Your task to perform on an android device: turn pop-ups off in chrome Image 0: 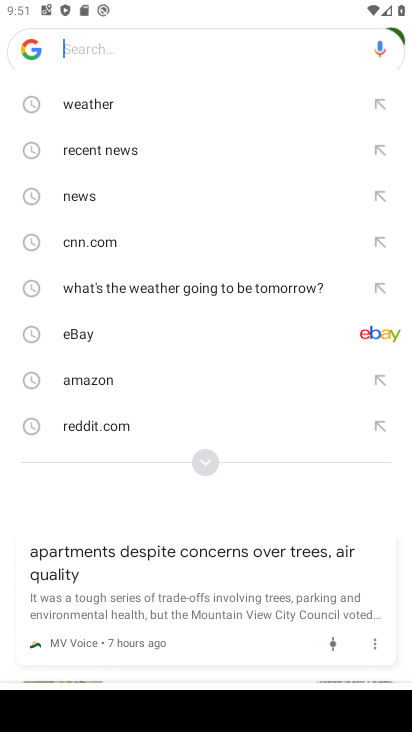
Step 0: press home button
Your task to perform on an android device: turn pop-ups off in chrome Image 1: 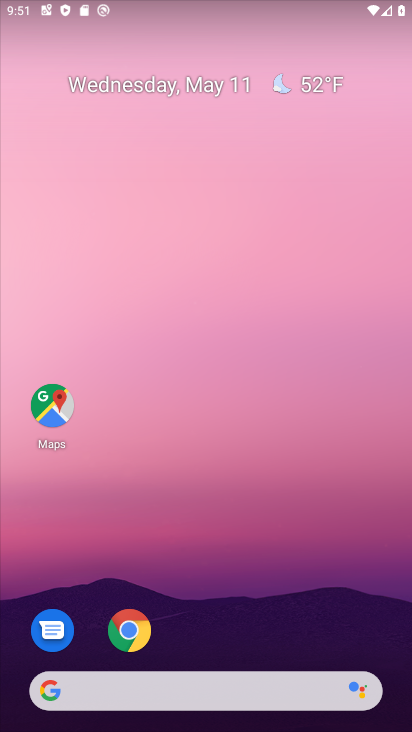
Step 1: drag from (213, 594) to (271, 148)
Your task to perform on an android device: turn pop-ups off in chrome Image 2: 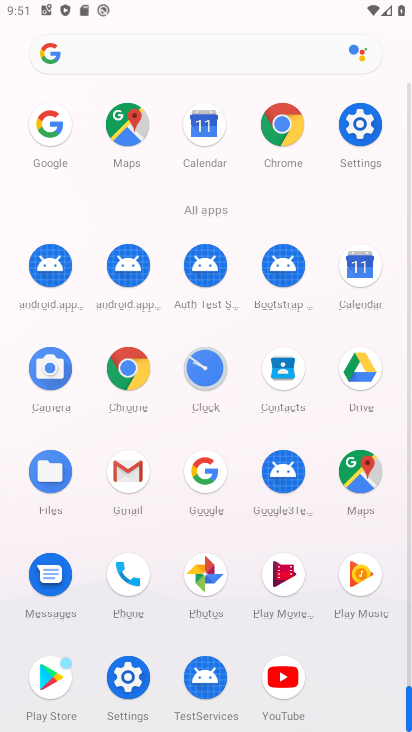
Step 2: click (295, 125)
Your task to perform on an android device: turn pop-ups off in chrome Image 3: 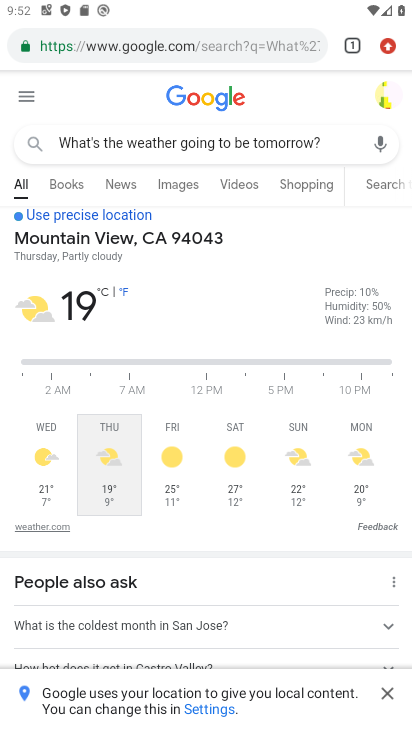
Step 3: drag from (383, 42) to (232, 543)
Your task to perform on an android device: turn pop-ups off in chrome Image 4: 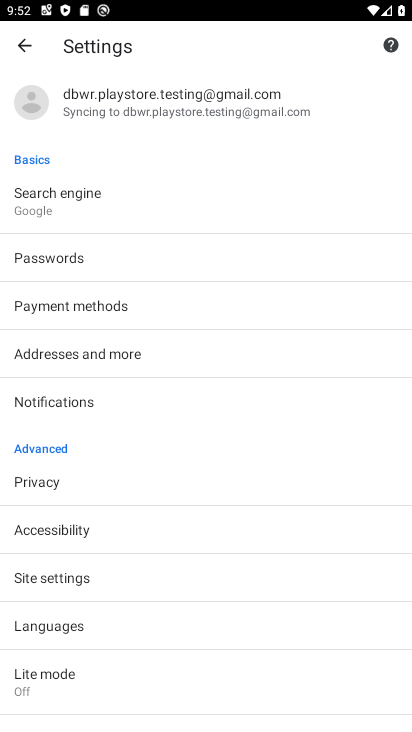
Step 4: drag from (226, 623) to (239, 305)
Your task to perform on an android device: turn pop-ups off in chrome Image 5: 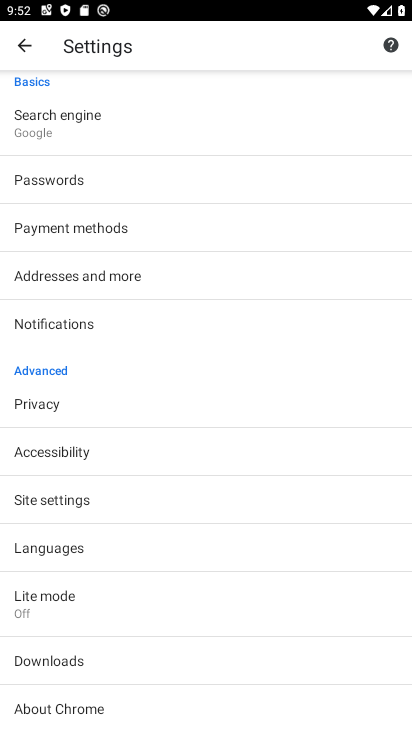
Step 5: click (46, 494)
Your task to perform on an android device: turn pop-ups off in chrome Image 6: 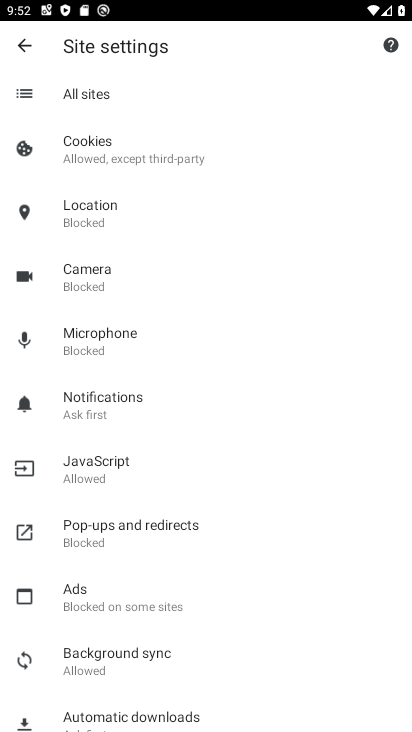
Step 6: click (97, 520)
Your task to perform on an android device: turn pop-ups off in chrome Image 7: 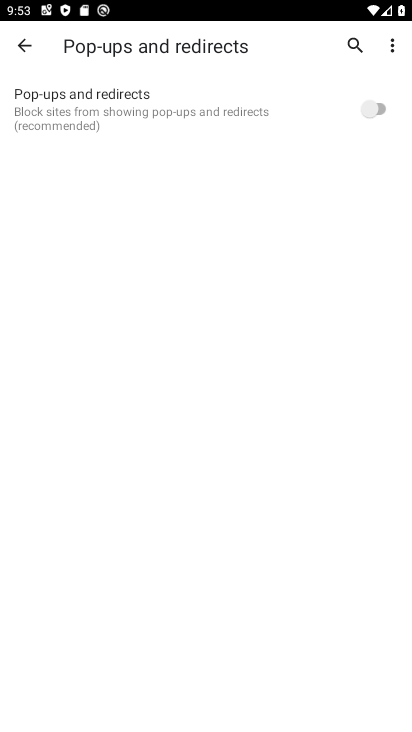
Step 7: task complete